Your task to perform on an android device: open wifi settings Image 0: 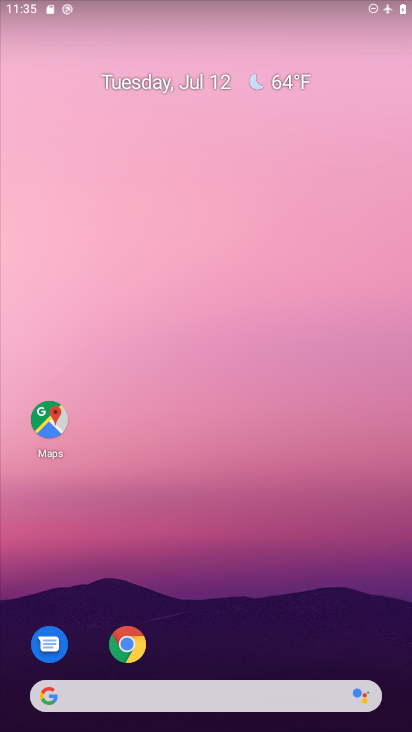
Step 0: drag from (306, 635) to (208, 76)
Your task to perform on an android device: open wifi settings Image 1: 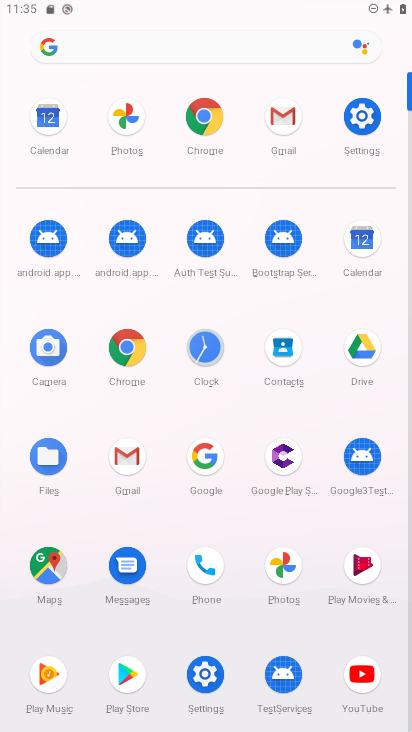
Step 1: click (350, 108)
Your task to perform on an android device: open wifi settings Image 2: 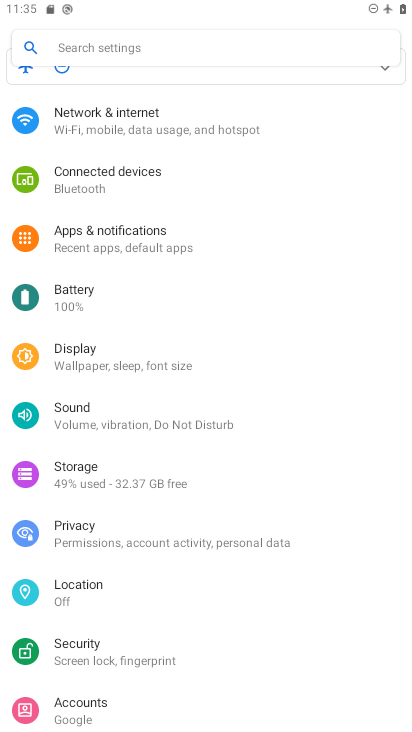
Step 2: click (285, 141)
Your task to perform on an android device: open wifi settings Image 3: 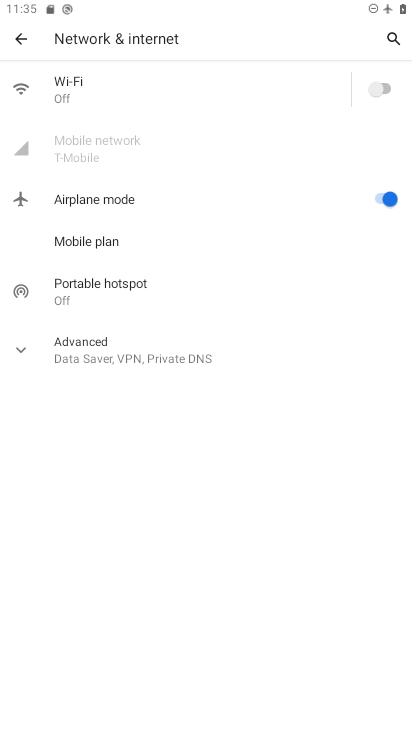
Step 3: click (380, 87)
Your task to perform on an android device: open wifi settings Image 4: 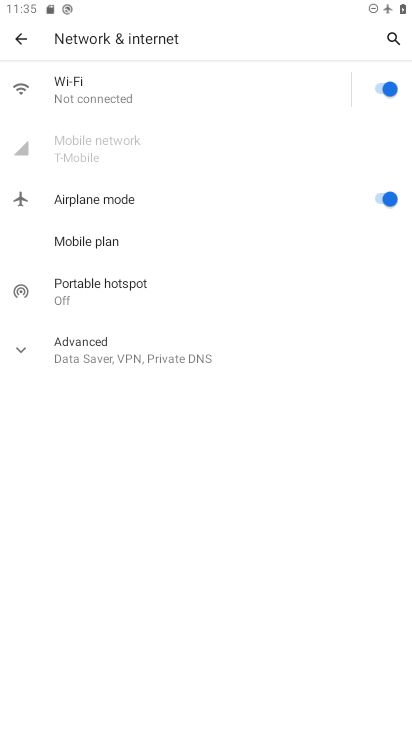
Step 4: task complete